Your task to perform on an android device: Search for vegetarian restaurants on Maps Image 0: 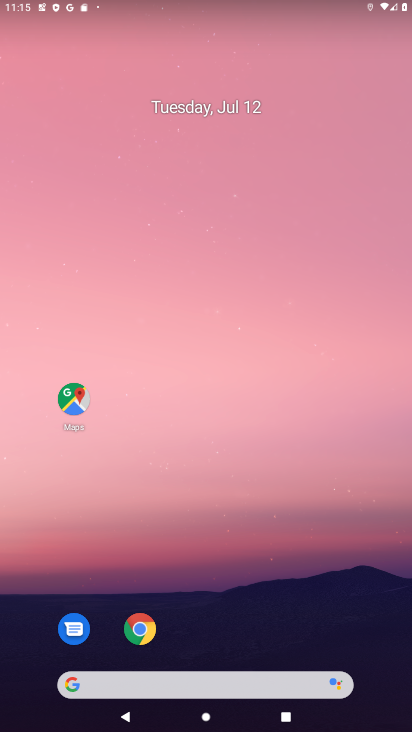
Step 0: drag from (129, 614) to (148, 327)
Your task to perform on an android device: Search for vegetarian restaurants on Maps Image 1: 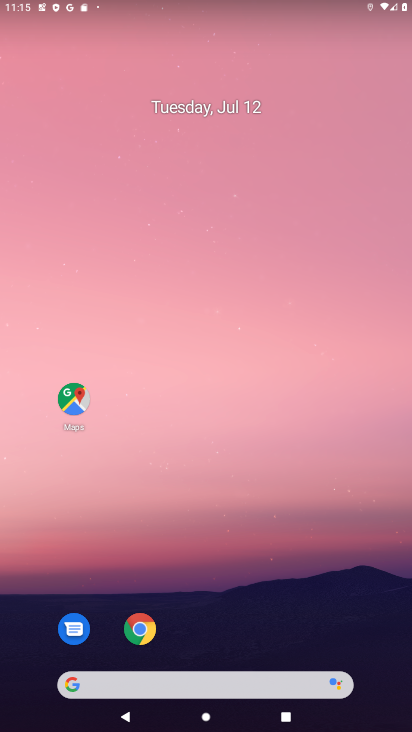
Step 1: drag from (253, 634) to (234, 219)
Your task to perform on an android device: Search for vegetarian restaurants on Maps Image 2: 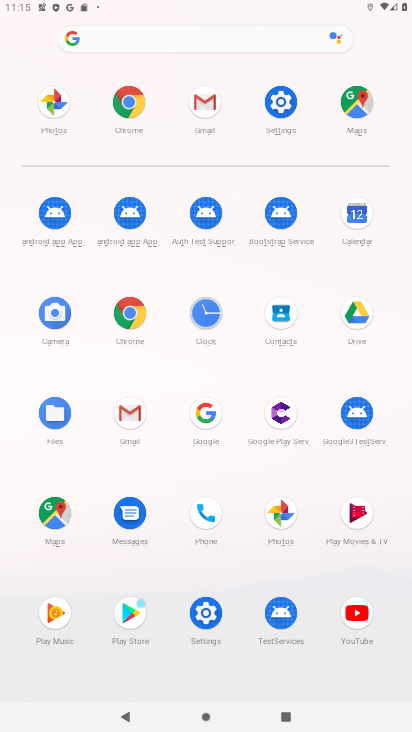
Step 2: click (360, 95)
Your task to perform on an android device: Search for vegetarian restaurants on Maps Image 3: 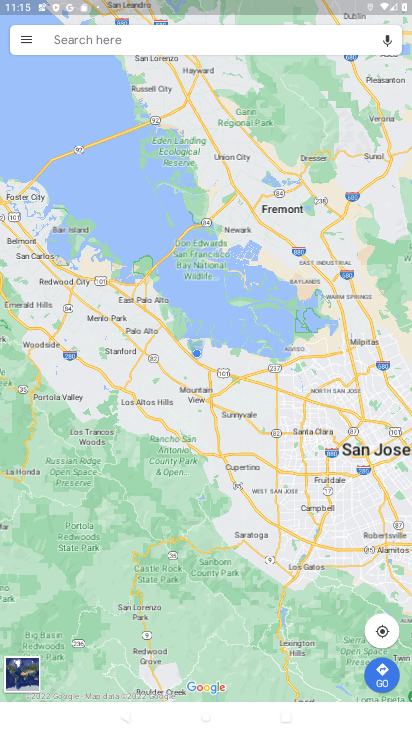
Step 3: click (162, 29)
Your task to perform on an android device: Search for vegetarian restaurants on Maps Image 4: 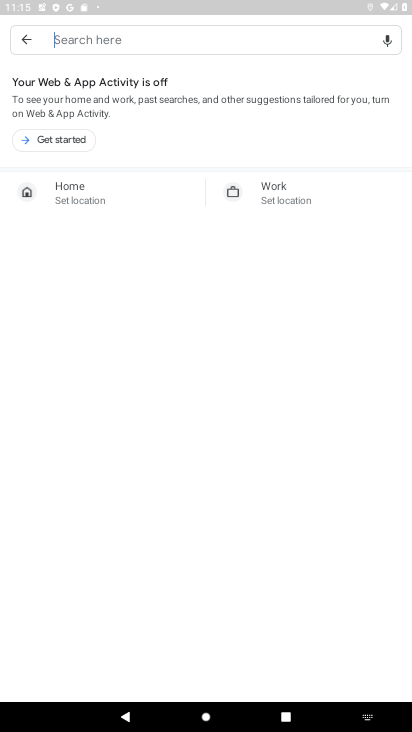
Step 4: click (215, 30)
Your task to perform on an android device: Search for vegetarian restaurants on Maps Image 5: 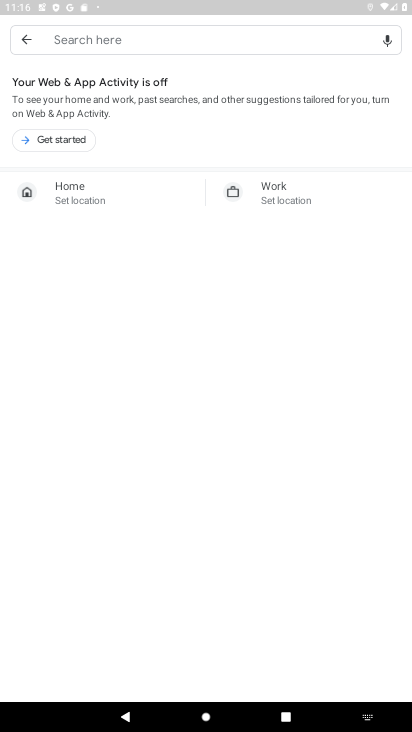
Step 5: click (234, 31)
Your task to perform on an android device: Search for vegetarian restaurants on Maps Image 6: 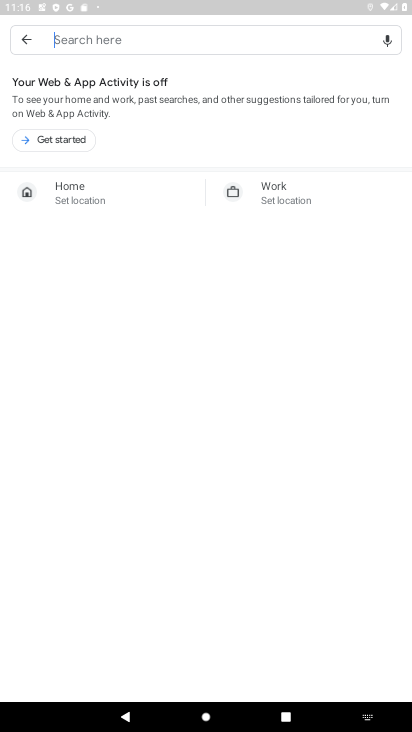
Step 6: type "vegetarian restaurants "
Your task to perform on an android device: Search for vegetarian restaurants on Maps Image 7: 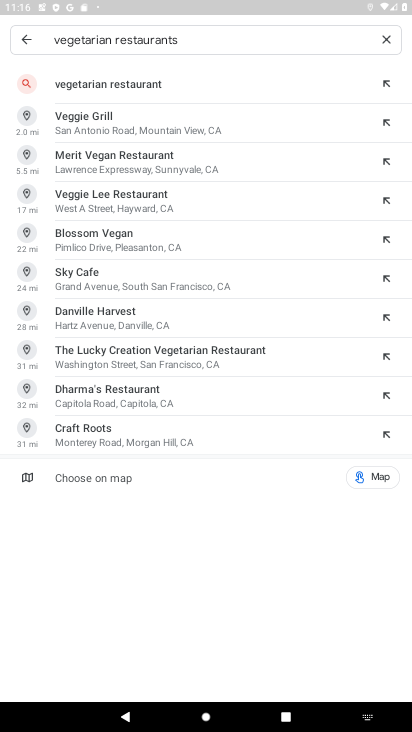
Step 7: click (139, 81)
Your task to perform on an android device: Search for vegetarian restaurants on Maps Image 8: 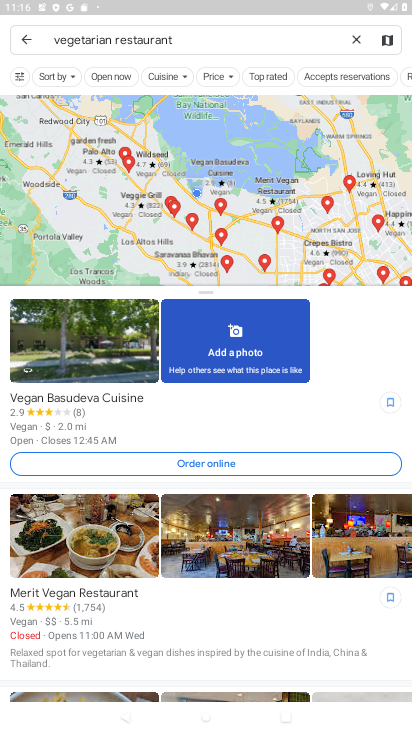
Step 8: task complete